Your task to perform on an android device: create a new album in the google photos Image 0: 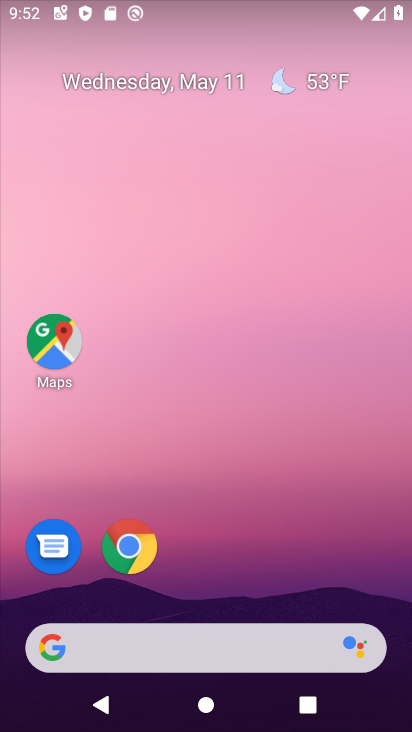
Step 0: drag from (389, 616) to (311, 76)
Your task to perform on an android device: create a new album in the google photos Image 1: 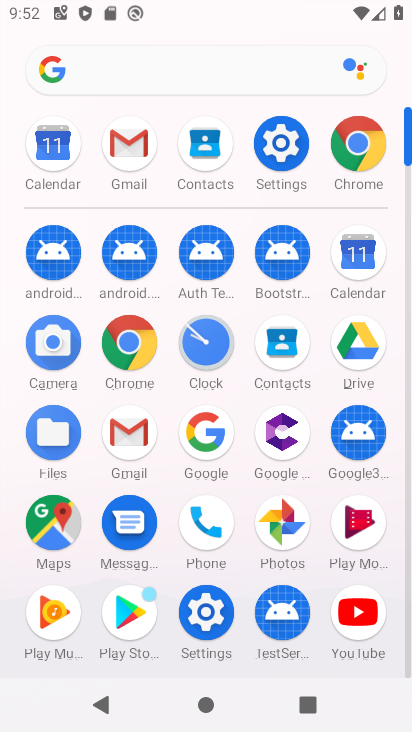
Step 1: click (279, 527)
Your task to perform on an android device: create a new album in the google photos Image 2: 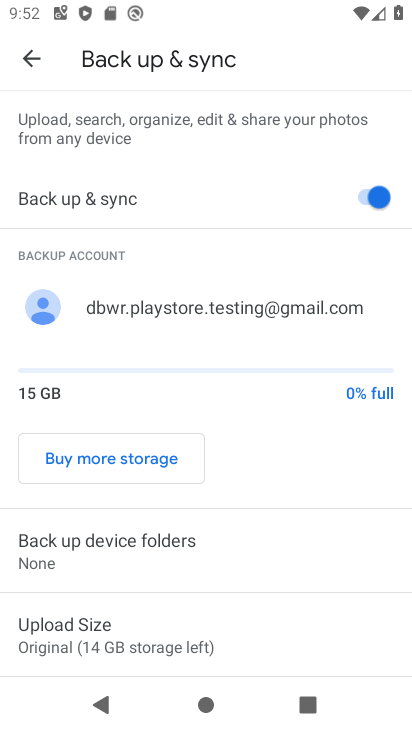
Step 2: press back button
Your task to perform on an android device: create a new album in the google photos Image 3: 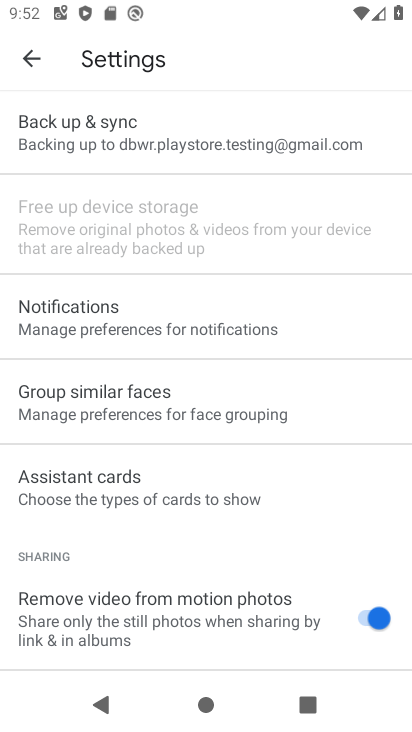
Step 3: press back button
Your task to perform on an android device: create a new album in the google photos Image 4: 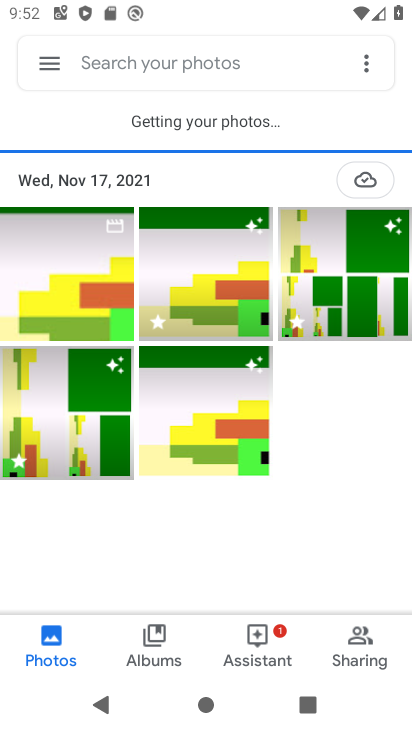
Step 4: click (87, 288)
Your task to perform on an android device: create a new album in the google photos Image 5: 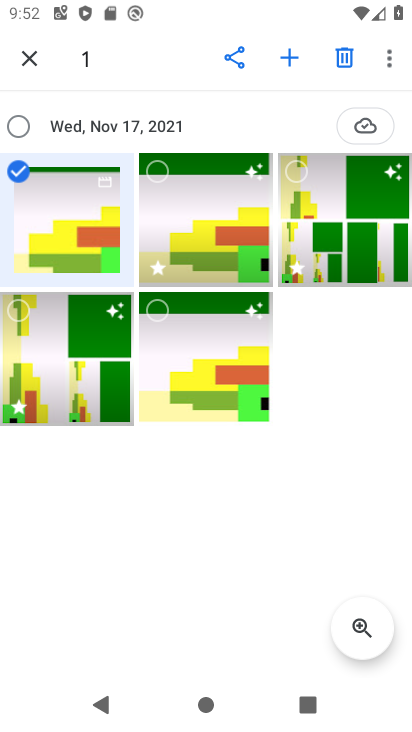
Step 5: click (286, 64)
Your task to perform on an android device: create a new album in the google photos Image 6: 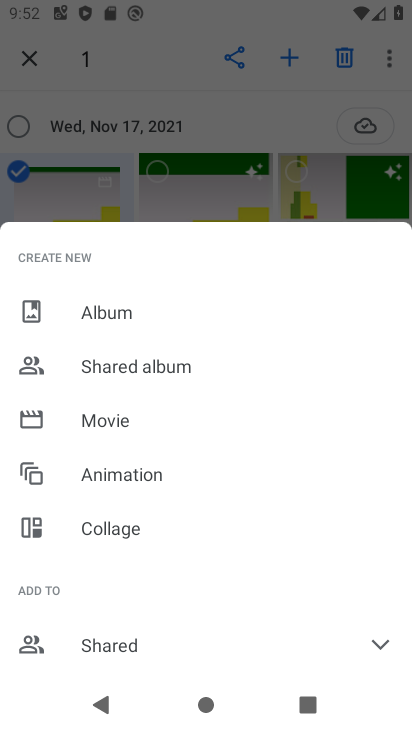
Step 6: click (132, 312)
Your task to perform on an android device: create a new album in the google photos Image 7: 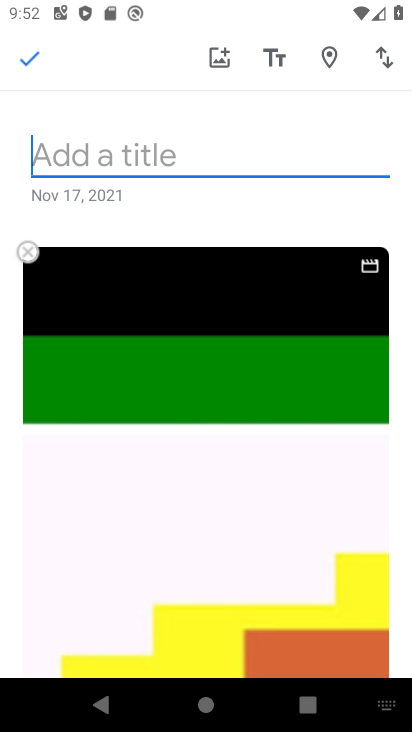
Step 7: type "KN"
Your task to perform on an android device: create a new album in the google photos Image 8: 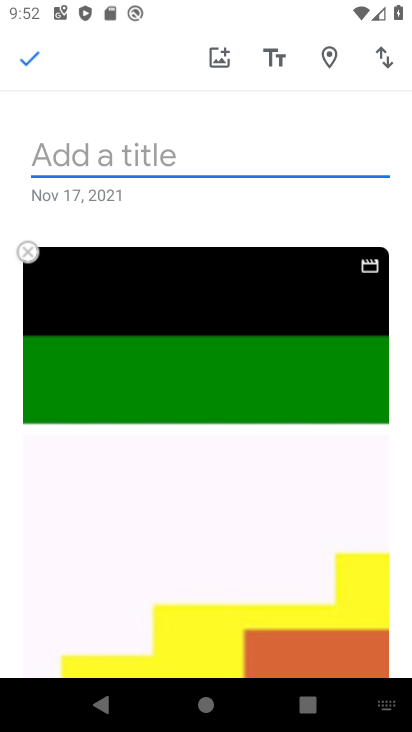
Step 8: click (14, 52)
Your task to perform on an android device: create a new album in the google photos Image 9: 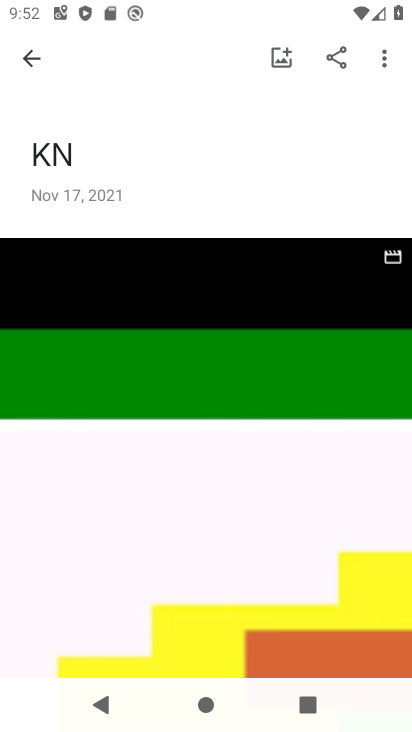
Step 9: task complete